Your task to perform on an android device: open device folders in google photos Image 0: 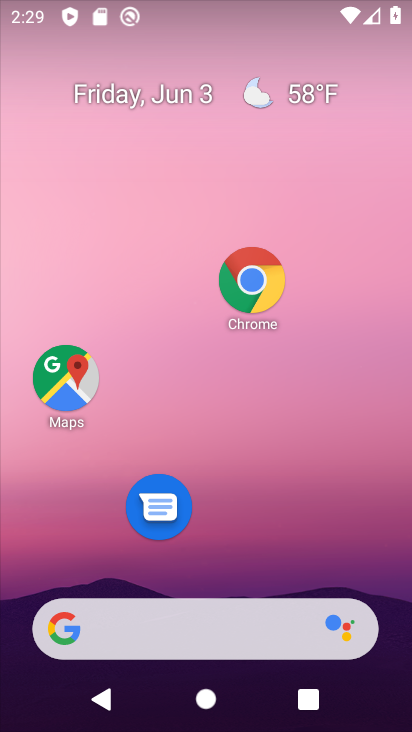
Step 0: drag from (258, 533) to (280, 10)
Your task to perform on an android device: open device folders in google photos Image 1: 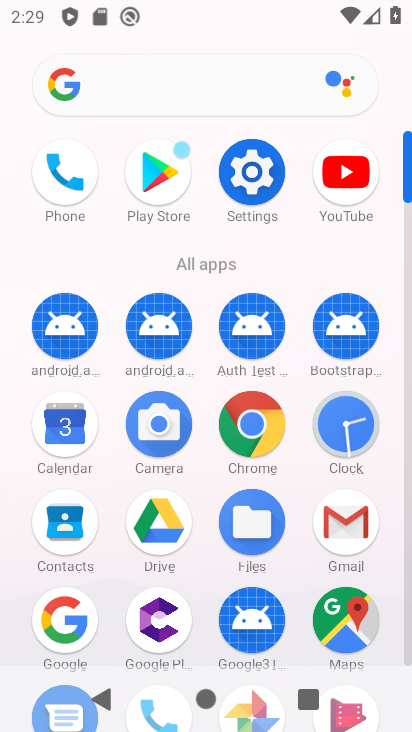
Step 1: drag from (199, 552) to (210, 37)
Your task to perform on an android device: open device folders in google photos Image 2: 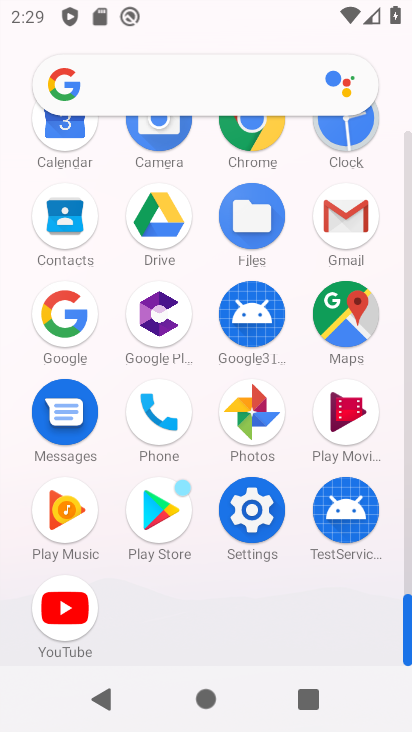
Step 2: click (246, 400)
Your task to perform on an android device: open device folders in google photos Image 3: 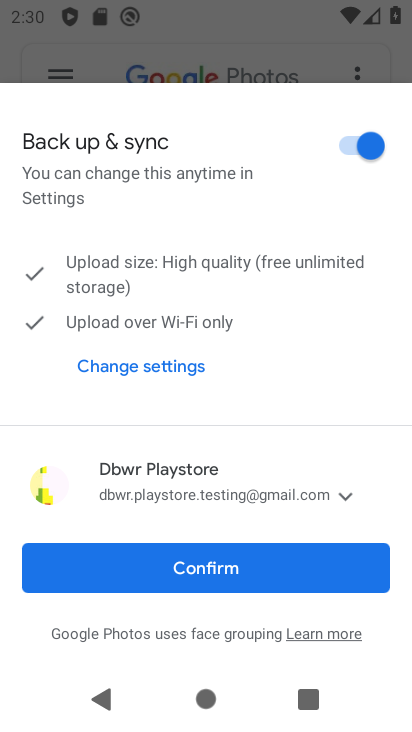
Step 3: click (210, 549)
Your task to perform on an android device: open device folders in google photos Image 4: 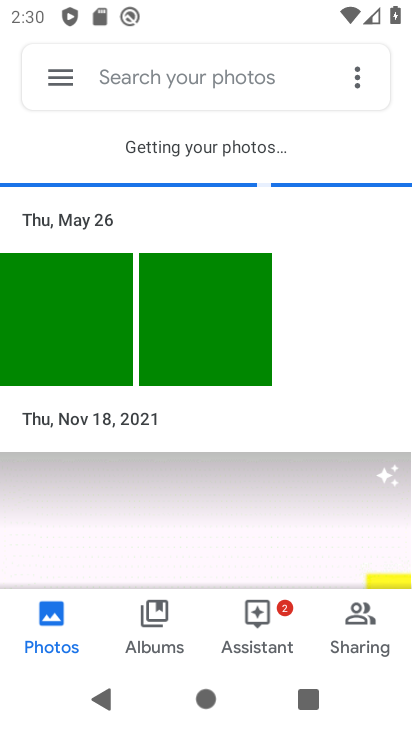
Step 4: click (58, 82)
Your task to perform on an android device: open device folders in google photos Image 5: 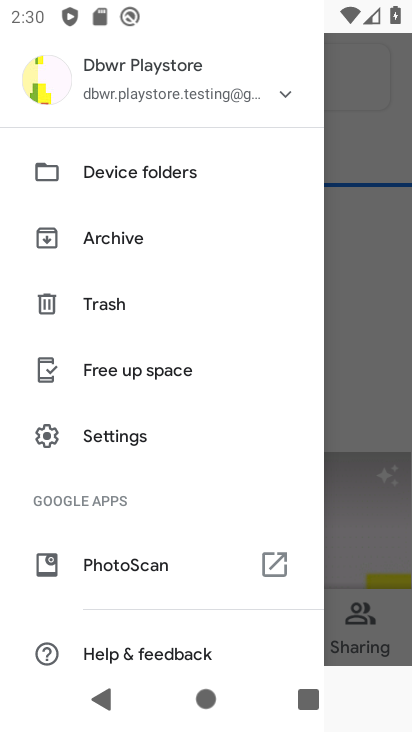
Step 5: click (201, 173)
Your task to perform on an android device: open device folders in google photos Image 6: 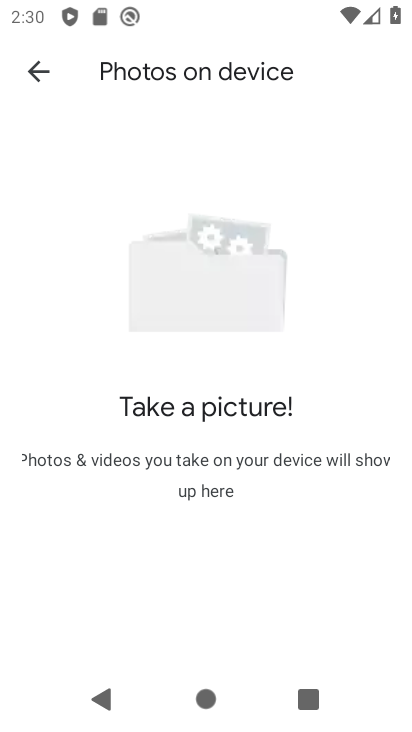
Step 6: task complete